Your task to perform on an android device: allow notifications from all sites in the chrome app Image 0: 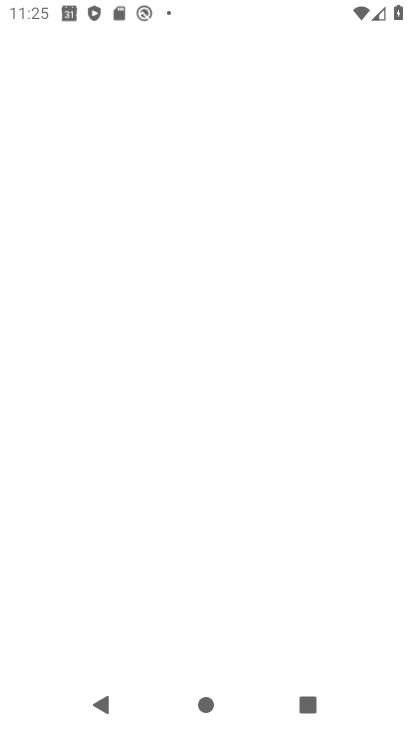
Step 0: press back button
Your task to perform on an android device: allow notifications from all sites in the chrome app Image 1: 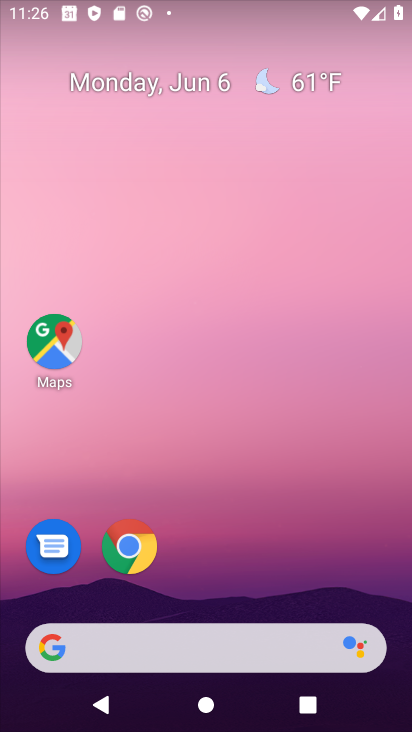
Step 1: click (131, 539)
Your task to perform on an android device: allow notifications from all sites in the chrome app Image 2: 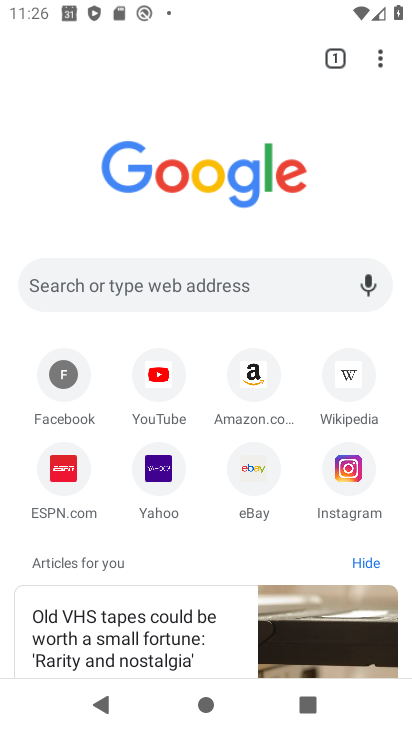
Step 2: drag from (378, 55) to (177, 495)
Your task to perform on an android device: allow notifications from all sites in the chrome app Image 3: 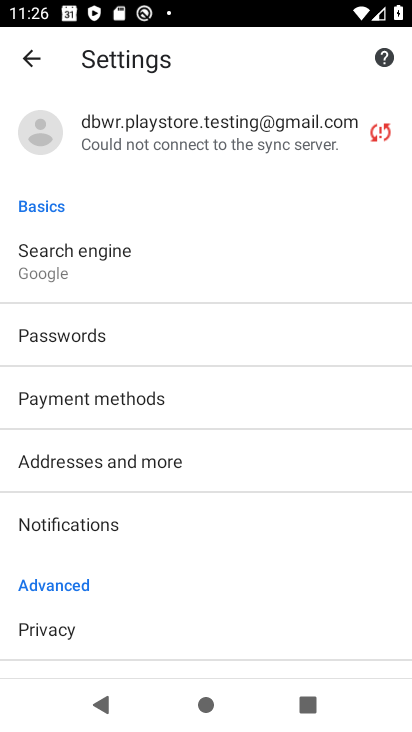
Step 3: click (90, 532)
Your task to perform on an android device: allow notifications from all sites in the chrome app Image 4: 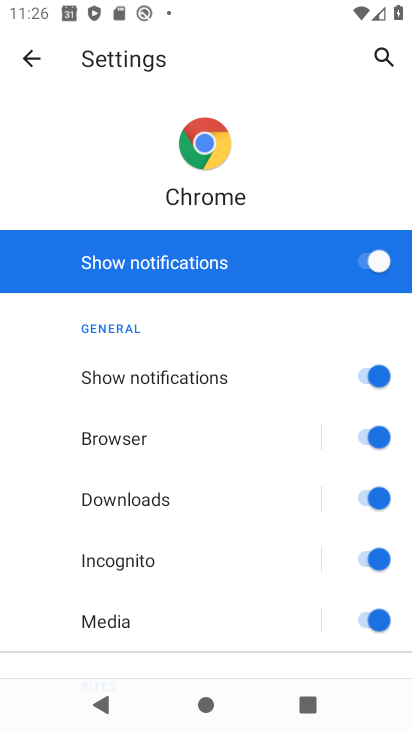
Step 4: task complete